Your task to perform on an android device: toggle javascript in the chrome app Image 0: 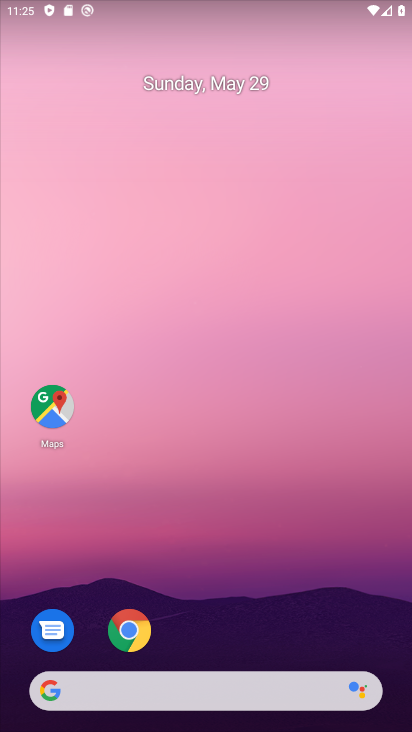
Step 0: click (128, 634)
Your task to perform on an android device: toggle javascript in the chrome app Image 1: 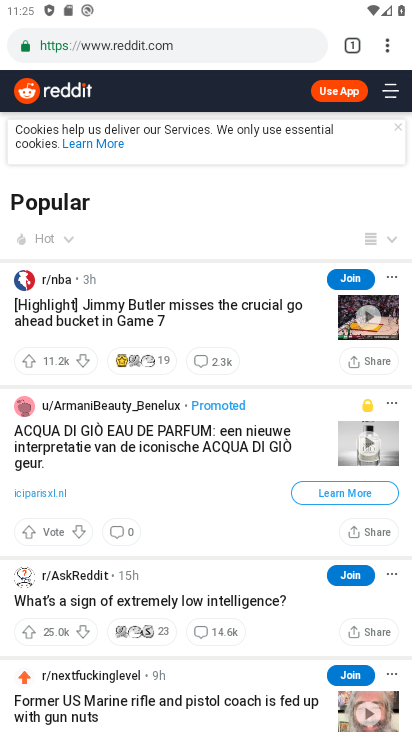
Step 1: click (385, 36)
Your task to perform on an android device: toggle javascript in the chrome app Image 2: 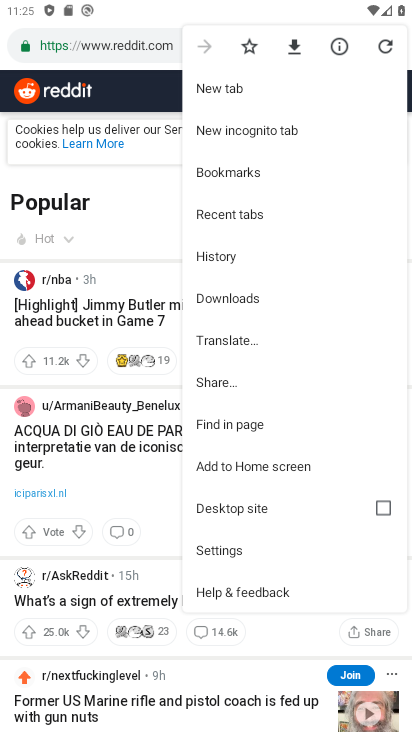
Step 2: click (211, 554)
Your task to perform on an android device: toggle javascript in the chrome app Image 3: 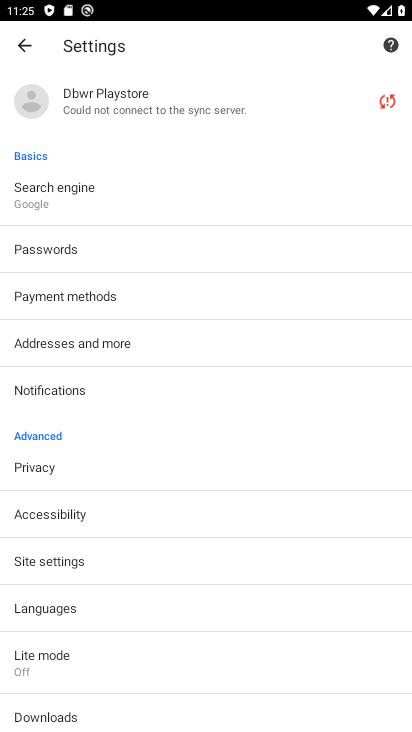
Step 3: click (81, 567)
Your task to perform on an android device: toggle javascript in the chrome app Image 4: 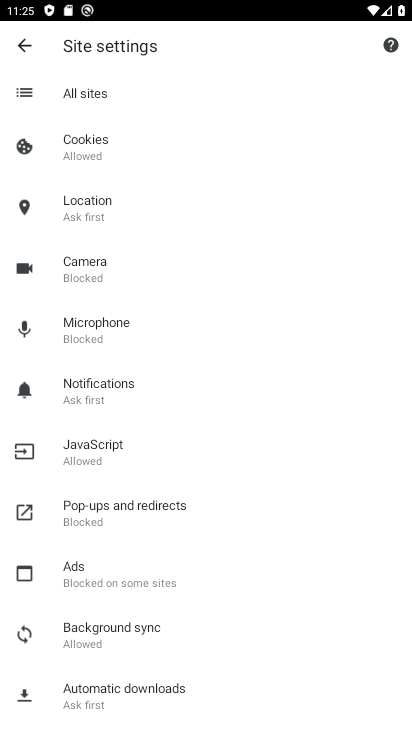
Step 4: click (98, 462)
Your task to perform on an android device: toggle javascript in the chrome app Image 5: 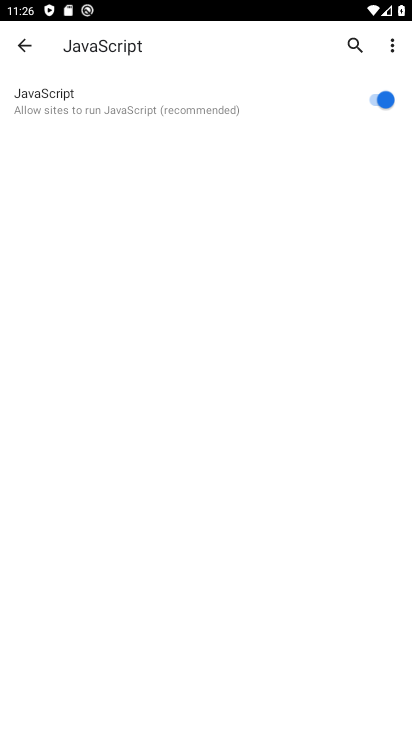
Step 5: click (386, 99)
Your task to perform on an android device: toggle javascript in the chrome app Image 6: 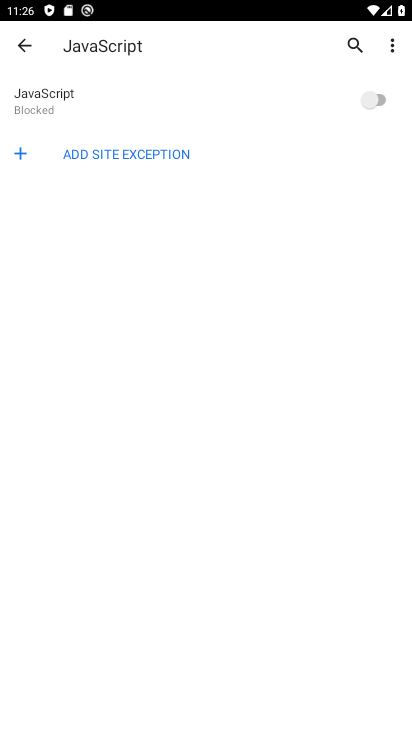
Step 6: task complete